Your task to perform on an android device: turn on wifi Image 0: 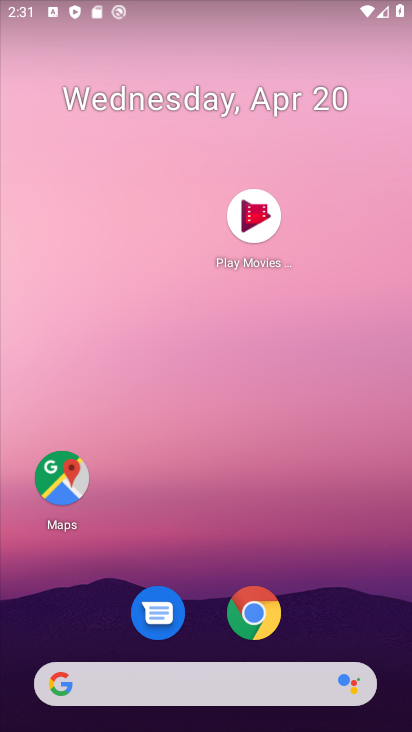
Step 0: drag from (267, 526) to (229, 84)
Your task to perform on an android device: turn on wifi Image 1: 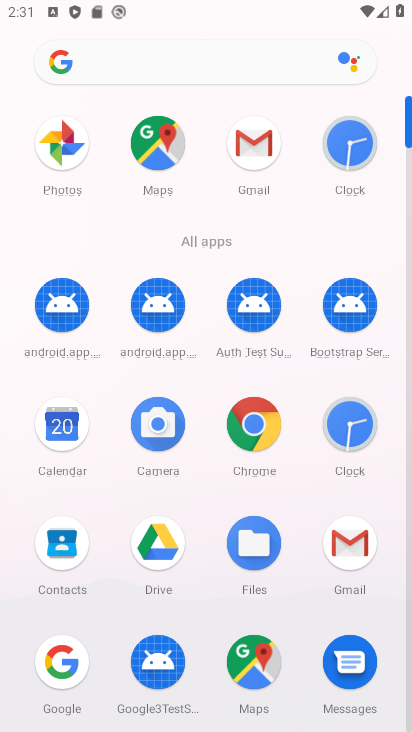
Step 1: drag from (192, 518) to (208, 167)
Your task to perform on an android device: turn on wifi Image 2: 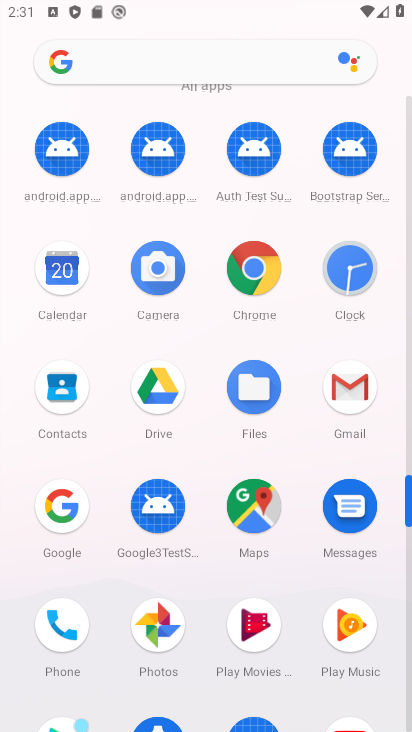
Step 2: drag from (204, 626) to (215, 310)
Your task to perform on an android device: turn on wifi Image 3: 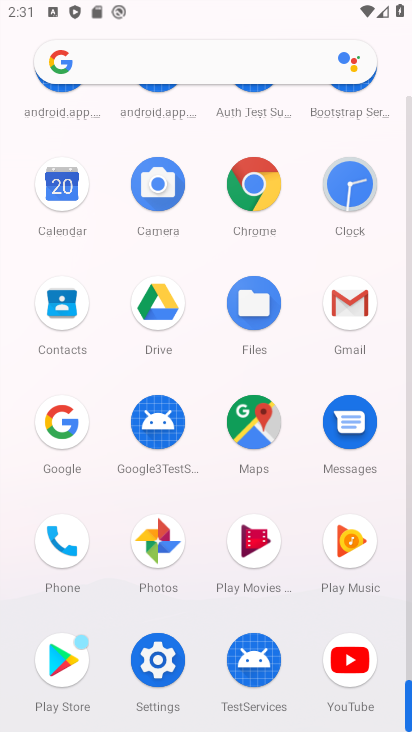
Step 3: click (164, 683)
Your task to perform on an android device: turn on wifi Image 4: 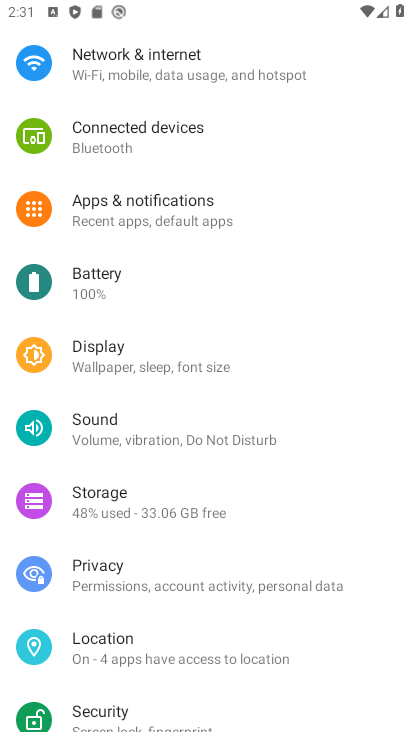
Step 4: click (216, 73)
Your task to perform on an android device: turn on wifi Image 5: 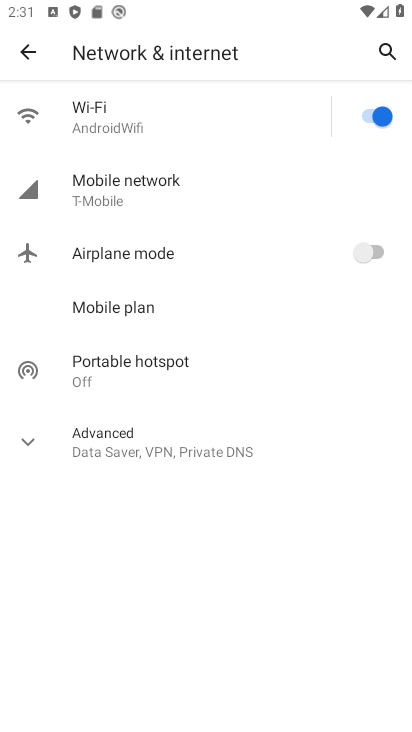
Step 5: task complete